Your task to perform on an android device: turn off priority inbox in the gmail app Image 0: 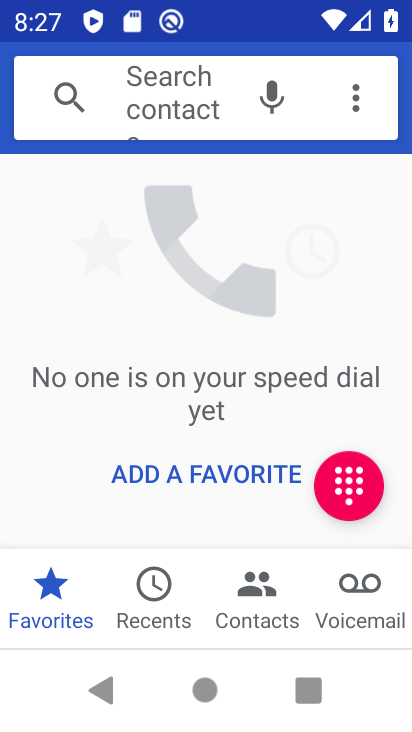
Step 0: press back button
Your task to perform on an android device: turn off priority inbox in the gmail app Image 1: 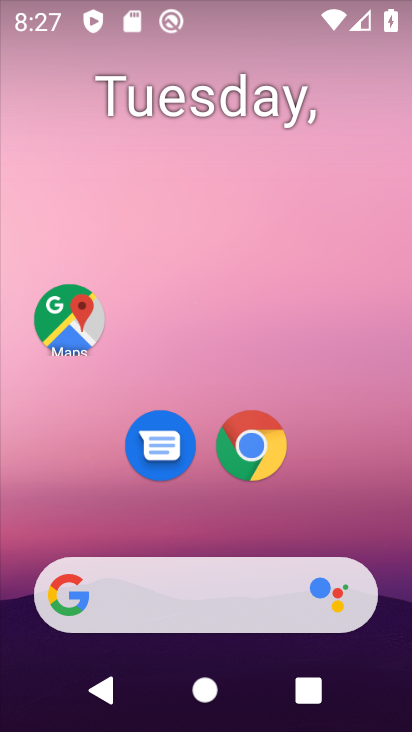
Step 1: drag from (347, 535) to (172, 67)
Your task to perform on an android device: turn off priority inbox in the gmail app Image 2: 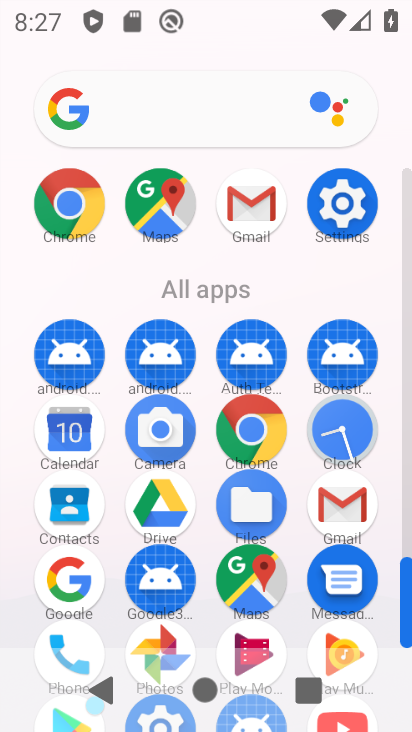
Step 2: click (332, 498)
Your task to perform on an android device: turn off priority inbox in the gmail app Image 3: 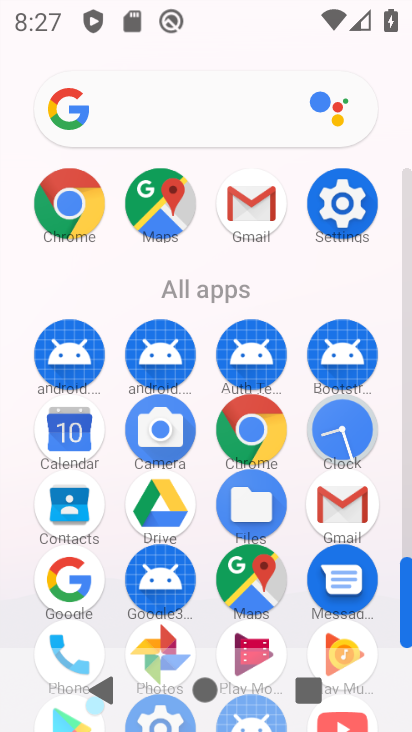
Step 3: click (332, 498)
Your task to perform on an android device: turn off priority inbox in the gmail app Image 4: 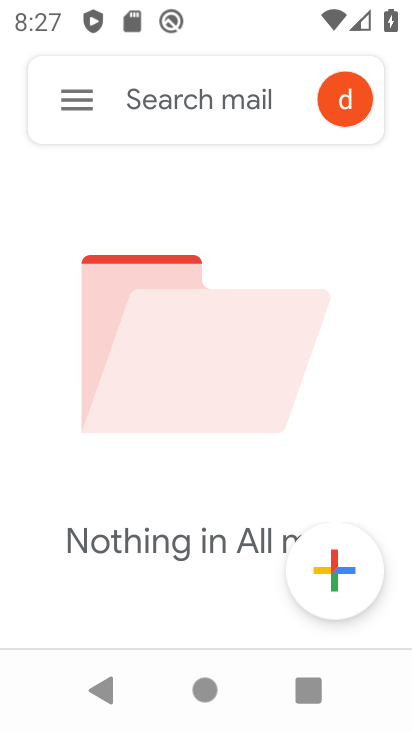
Step 4: click (77, 91)
Your task to perform on an android device: turn off priority inbox in the gmail app Image 5: 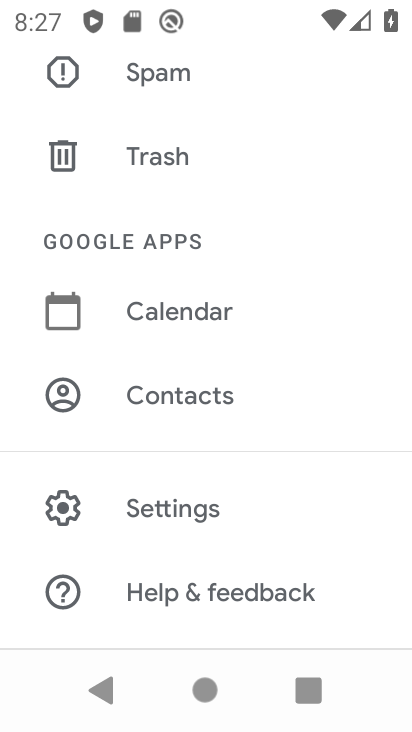
Step 5: click (181, 518)
Your task to perform on an android device: turn off priority inbox in the gmail app Image 6: 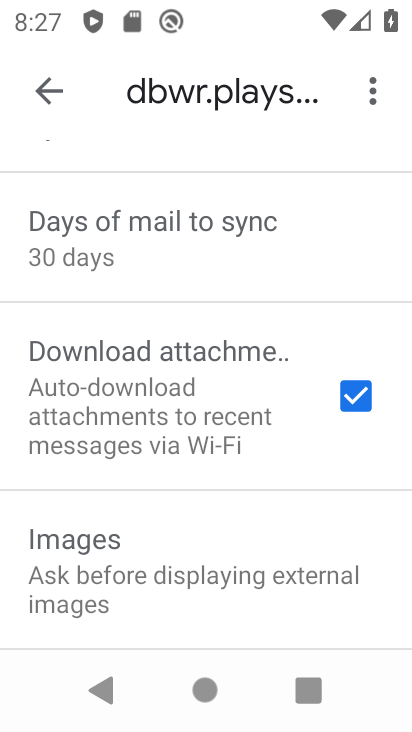
Step 6: click (197, 367)
Your task to perform on an android device: turn off priority inbox in the gmail app Image 7: 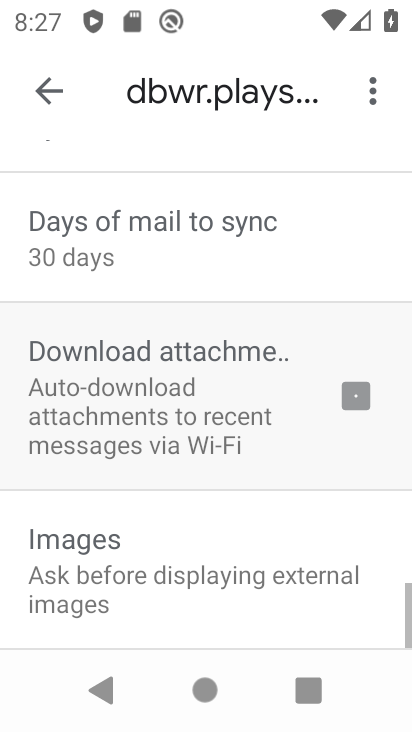
Step 7: click (147, 279)
Your task to perform on an android device: turn off priority inbox in the gmail app Image 8: 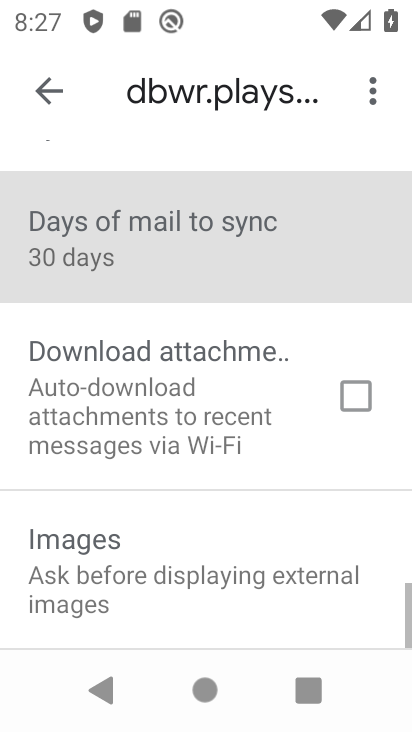
Step 8: drag from (145, 344) to (128, 628)
Your task to perform on an android device: turn off priority inbox in the gmail app Image 9: 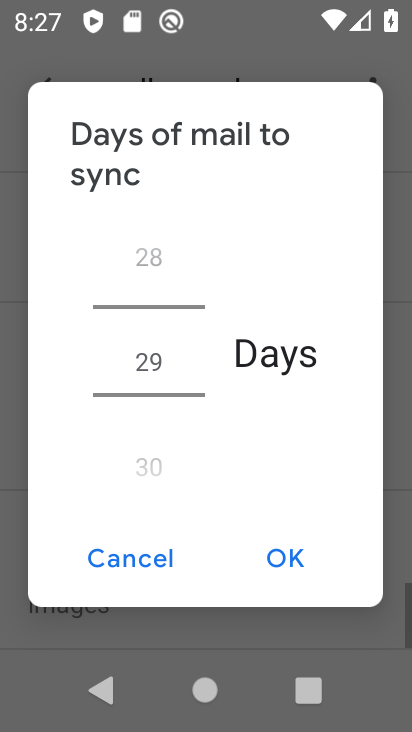
Step 9: drag from (53, 242) to (83, 354)
Your task to perform on an android device: turn off priority inbox in the gmail app Image 10: 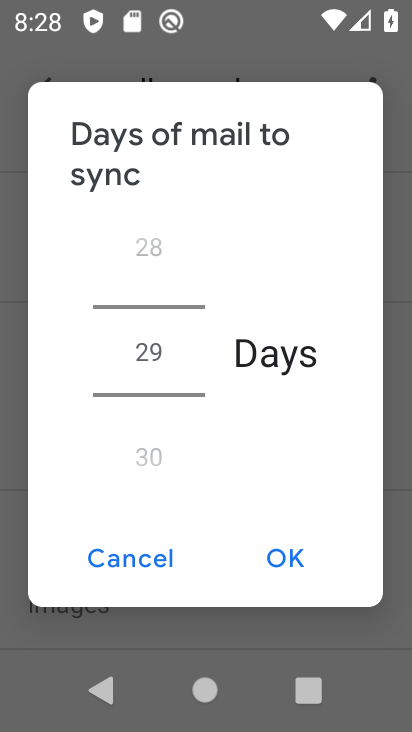
Step 10: click (124, 560)
Your task to perform on an android device: turn off priority inbox in the gmail app Image 11: 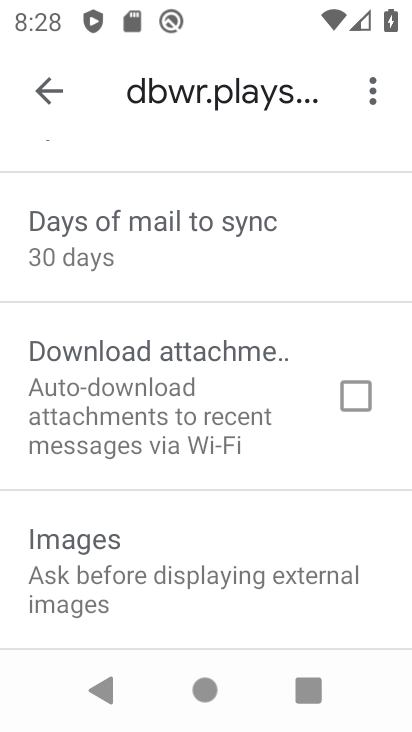
Step 11: drag from (234, 367) to (235, 594)
Your task to perform on an android device: turn off priority inbox in the gmail app Image 12: 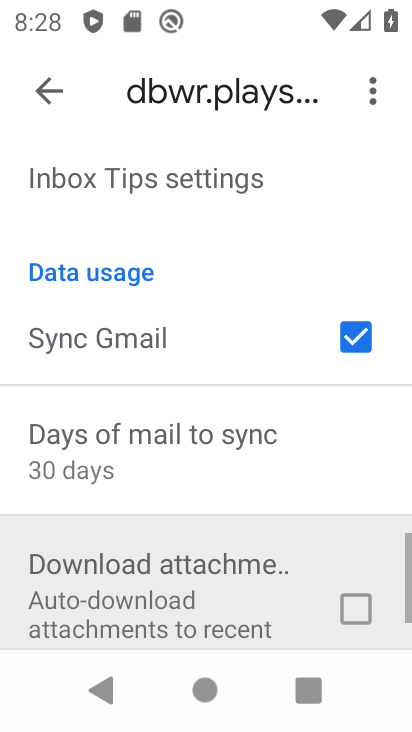
Step 12: drag from (182, 258) to (189, 364)
Your task to perform on an android device: turn off priority inbox in the gmail app Image 13: 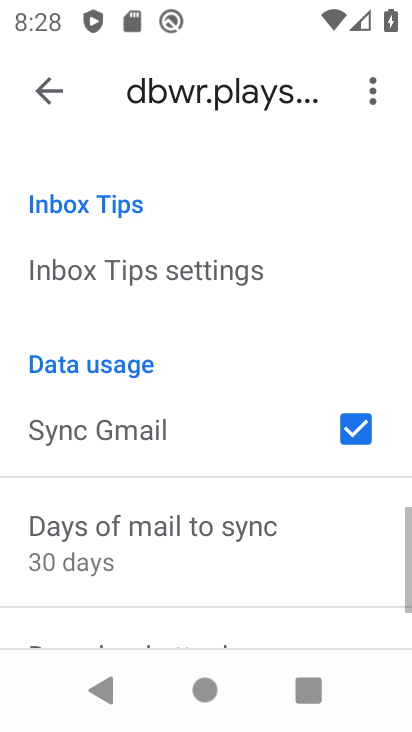
Step 13: drag from (171, 290) to (199, 497)
Your task to perform on an android device: turn off priority inbox in the gmail app Image 14: 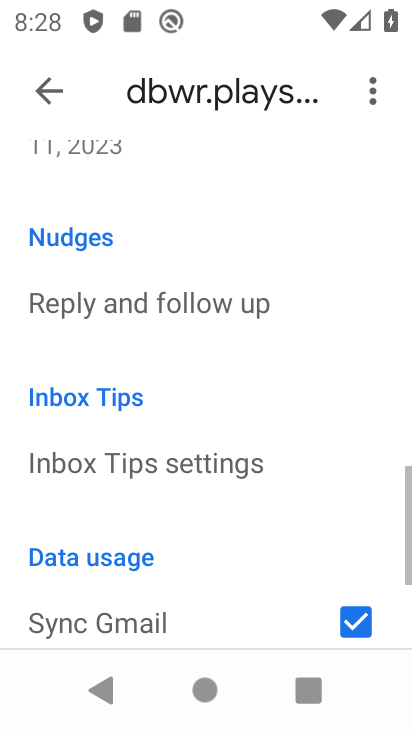
Step 14: drag from (168, 299) to (179, 399)
Your task to perform on an android device: turn off priority inbox in the gmail app Image 15: 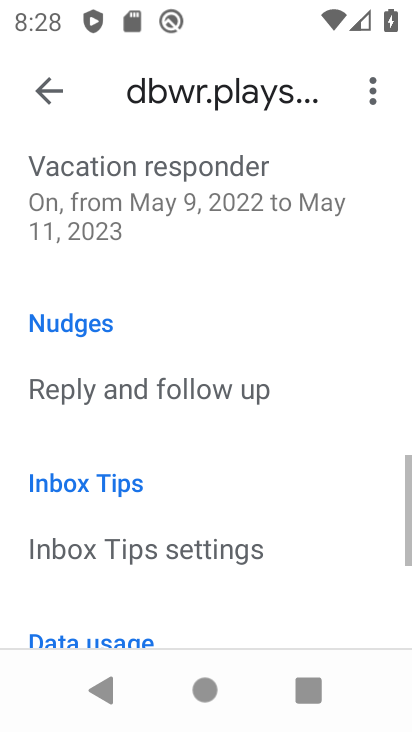
Step 15: drag from (179, 309) to (209, 449)
Your task to perform on an android device: turn off priority inbox in the gmail app Image 16: 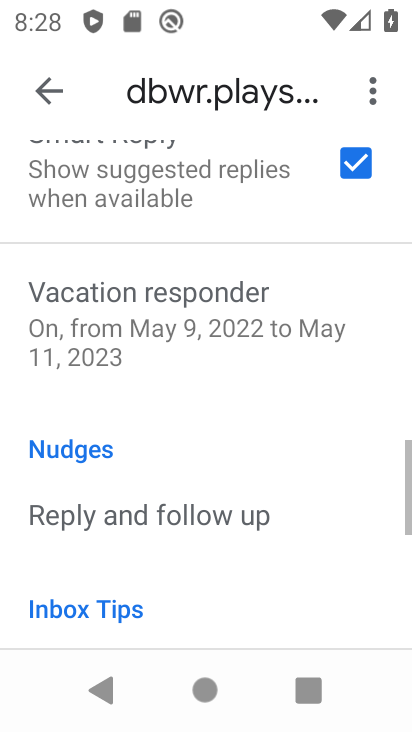
Step 16: drag from (179, 453) to (201, 514)
Your task to perform on an android device: turn off priority inbox in the gmail app Image 17: 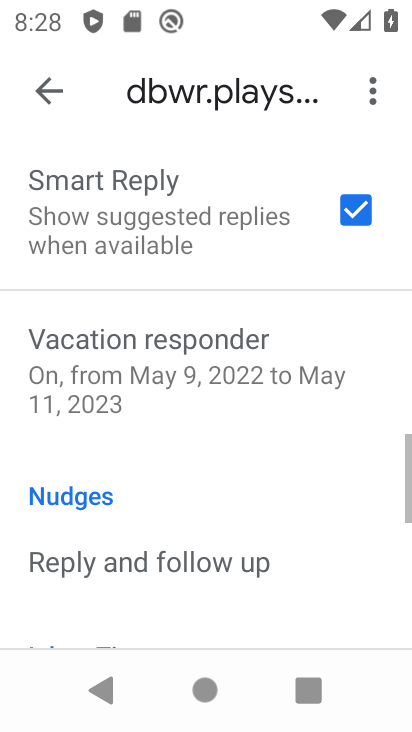
Step 17: drag from (149, 281) to (184, 495)
Your task to perform on an android device: turn off priority inbox in the gmail app Image 18: 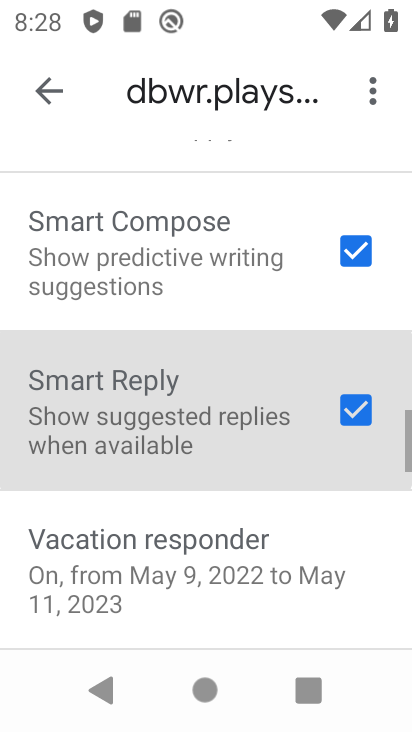
Step 18: drag from (140, 309) to (172, 537)
Your task to perform on an android device: turn off priority inbox in the gmail app Image 19: 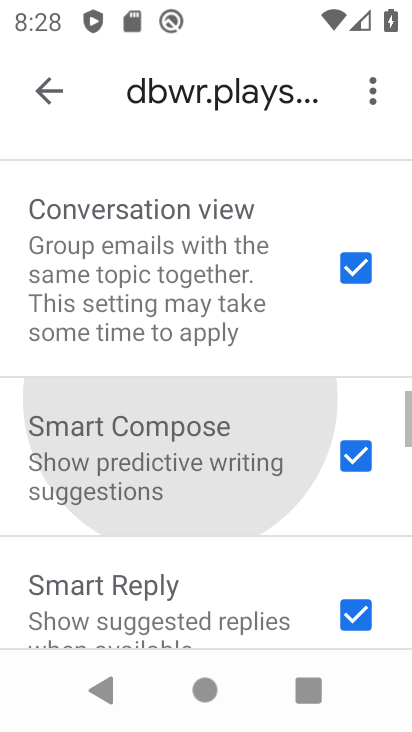
Step 19: drag from (150, 338) to (206, 507)
Your task to perform on an android device: turn off priority inbox in the gmail app Image 20: 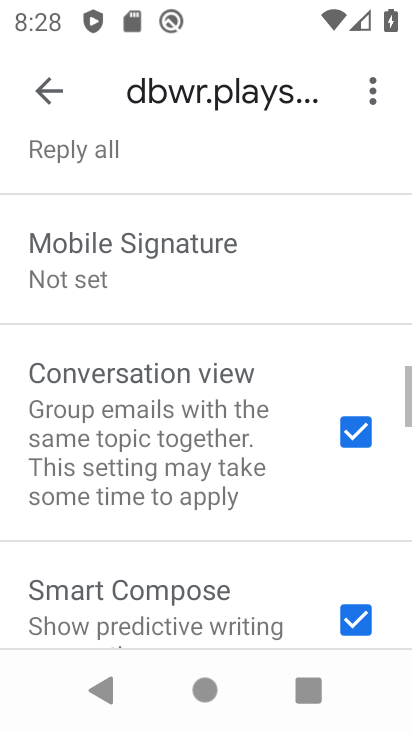
Step 20: drag from (186, 228) to (218, 502)
Your task to perform on an android device: turn off priority inbox in the gmail app Image 21: 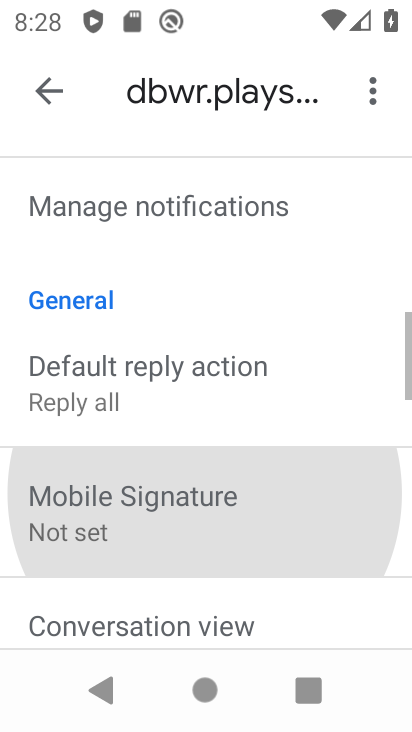
Step 21: drag from (147, 284) to (180, 559)
Your task to perform on an android device: turn off priority inbox in the gmail app Image 22: 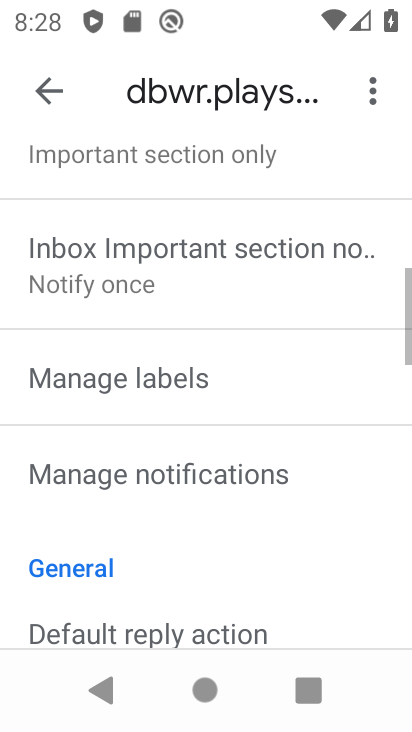
Step 22: drag from (147, 397) to (179, 509)
Your task to perform on an android device: turn off priority inbox in the gmail app Image 23: 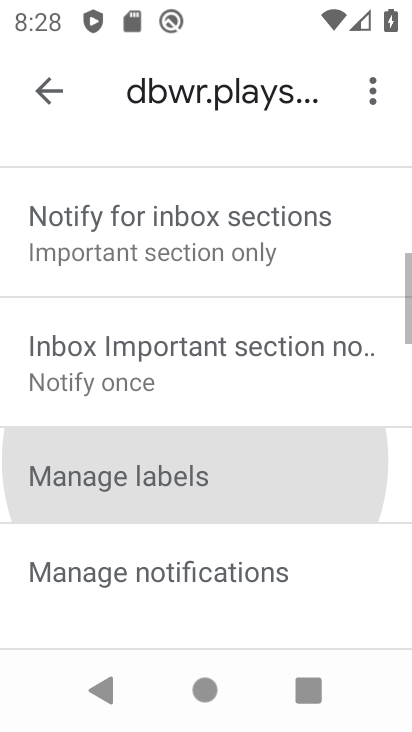
Step 23: drag from (154, 247) to (178, 433)
Your task to perform on an android device: turn off priority inbox in the gmail app Image 24: 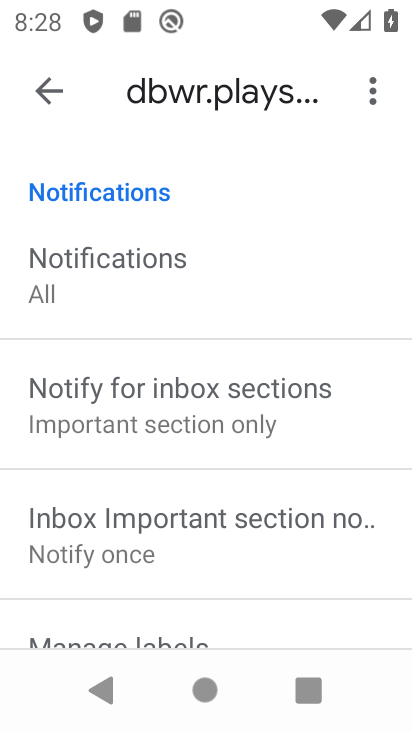
Step 24: drag from (102, 275) to (130, 475)
Your task to perform on an android device: turn off priority inbox in the gmail app Image 25: 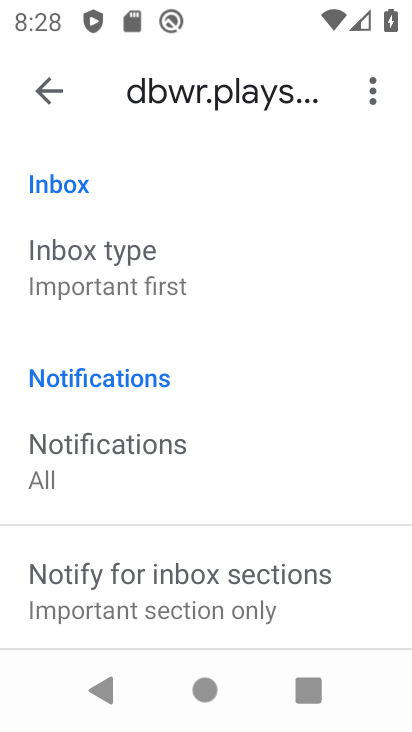
Step 25: click (188, 589)
Your task to perform on an android device: turn off priority inbox in the gmail app Image 26: 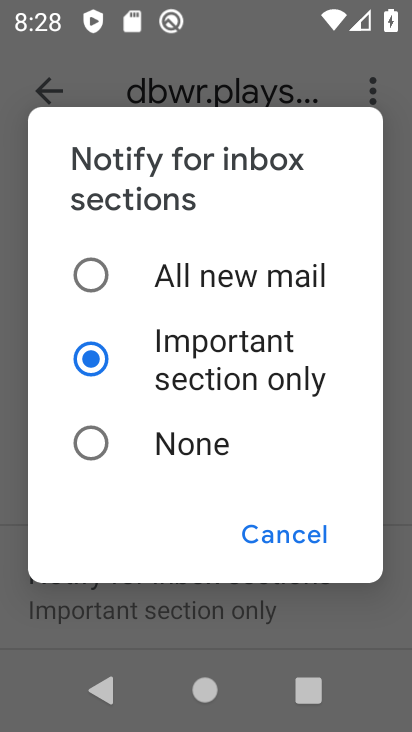
Step 26: click (300, 540)
Your task to perform on an android device: turn off priority inbox in the gmail app Image 27: 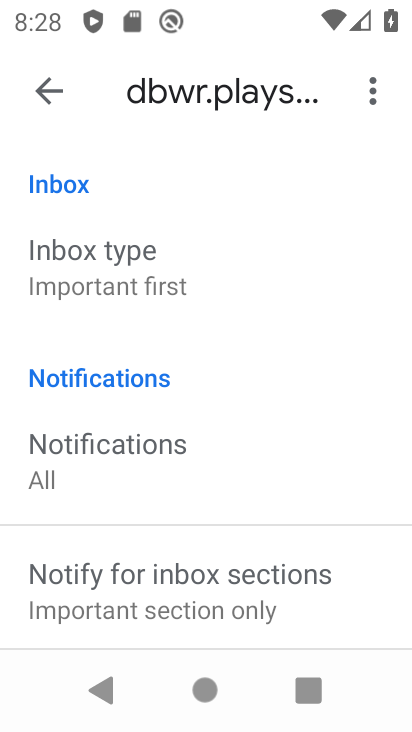
Step 27: click (93, 275)
Your task to perform on an android device: turn off priority inbox in the gmail app Image 28: 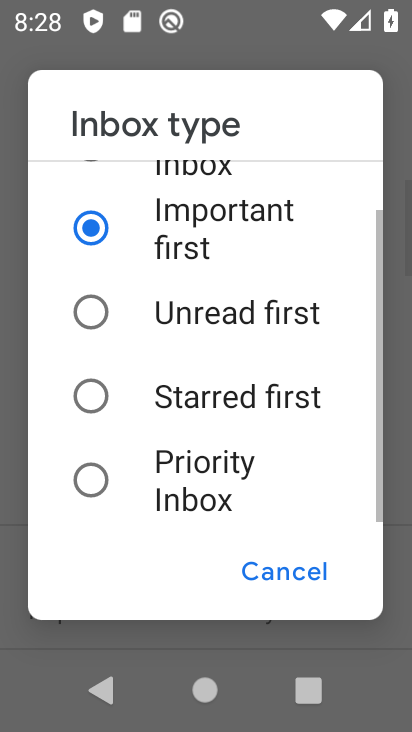
Step 28: click (82, 478)
Your task to perform on an android device: turn off priority inbox in the gmail app Image 29: 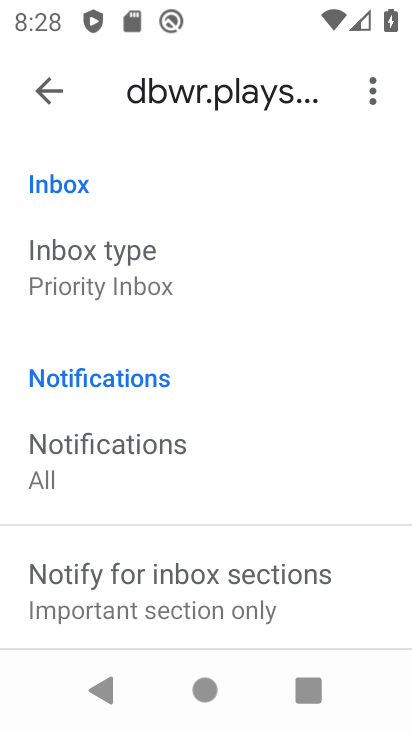
Step 29: task complete